Your task to perform on an android device: turn smart compose on in the gmail app Image 0: 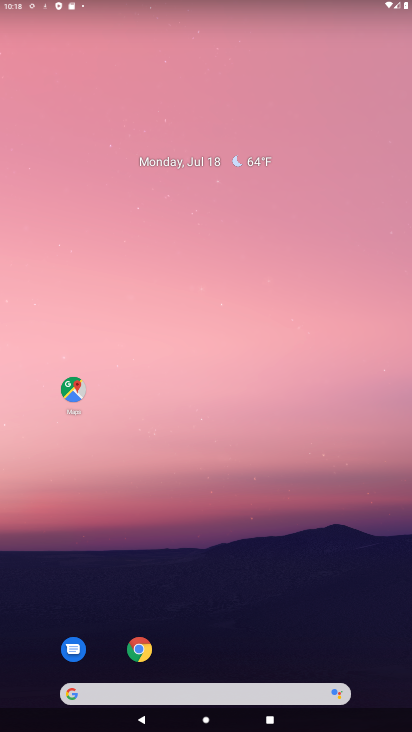
Step 0: drag from (213, 673) to (237, 108)
Your task to perform on an android device: turn smart compose on in the gmail app Image 1: 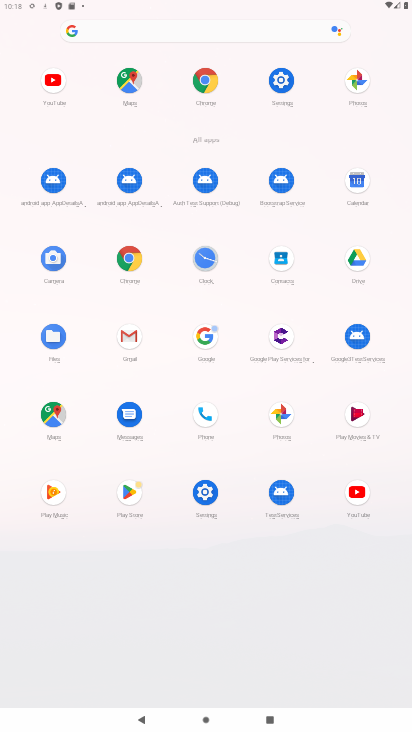
Step 1: click (140, 340)
Your task to perform on an android device: turn smart compose on in the gmail app Image 2: 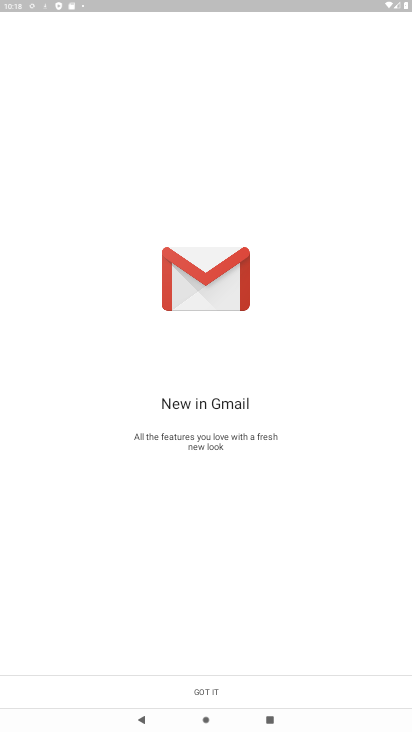
Step 2: click (180, 695)
Your task to perform on an android device: turn smart compose on in the gmail app Image 3: 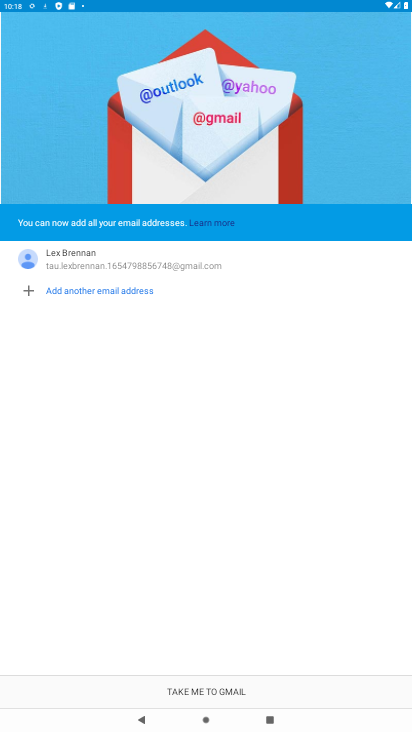
Step 3: click (182, 696)
Your task to perform on an android device: turn smart compose on in the gmail app Image 4: 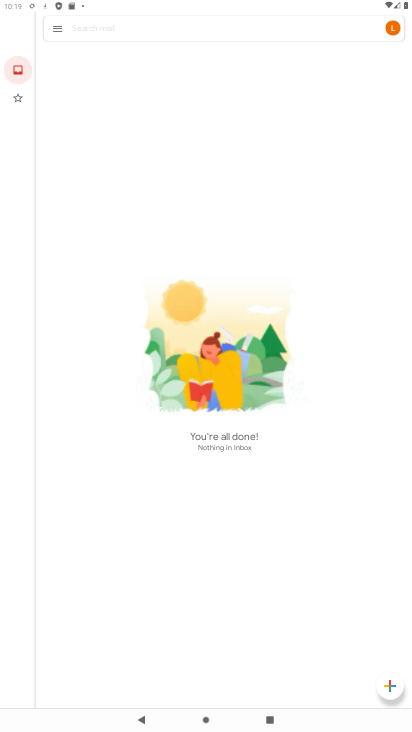
Step 4: click (57, 27)
Your task to perform on an android device: turn smart compose on in the gmail app Image 5: 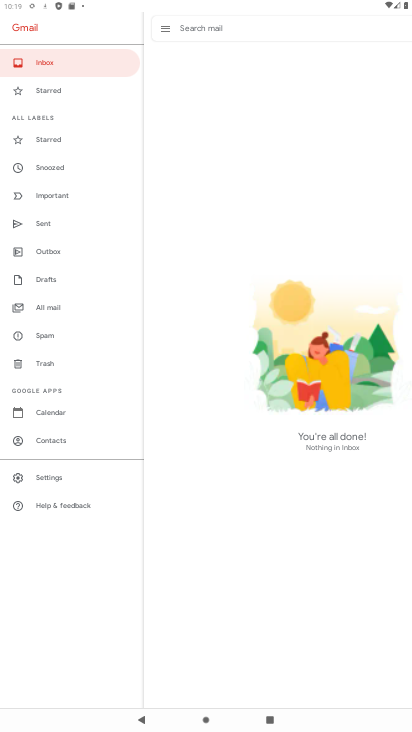
Step 5: click (60, 473)
Your task to perform on an android device: turn smart compose on in the gmail app Image 6: 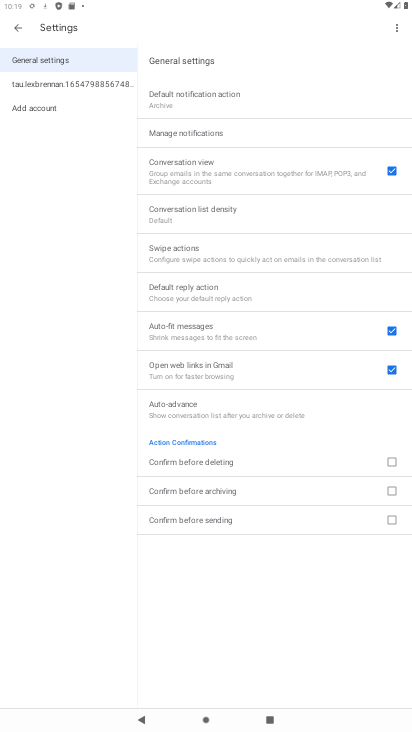
Step 6: click (98, 87)
Your task to perform on an android device: turn smart compose on in the gmail app Image 7: 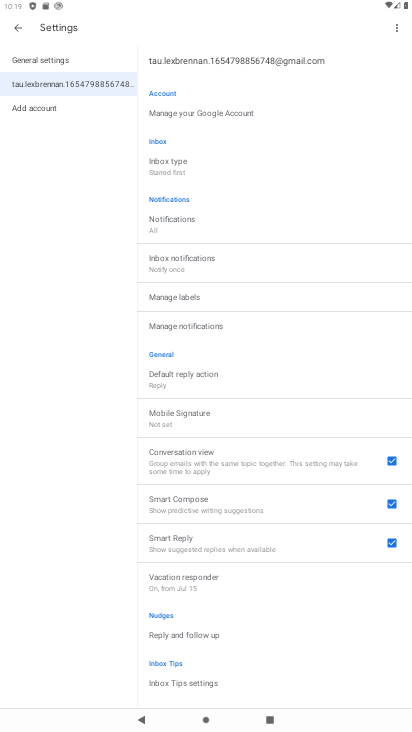
Step 7: task complete